Your task to perform on an android device: See recent photos Image 0: 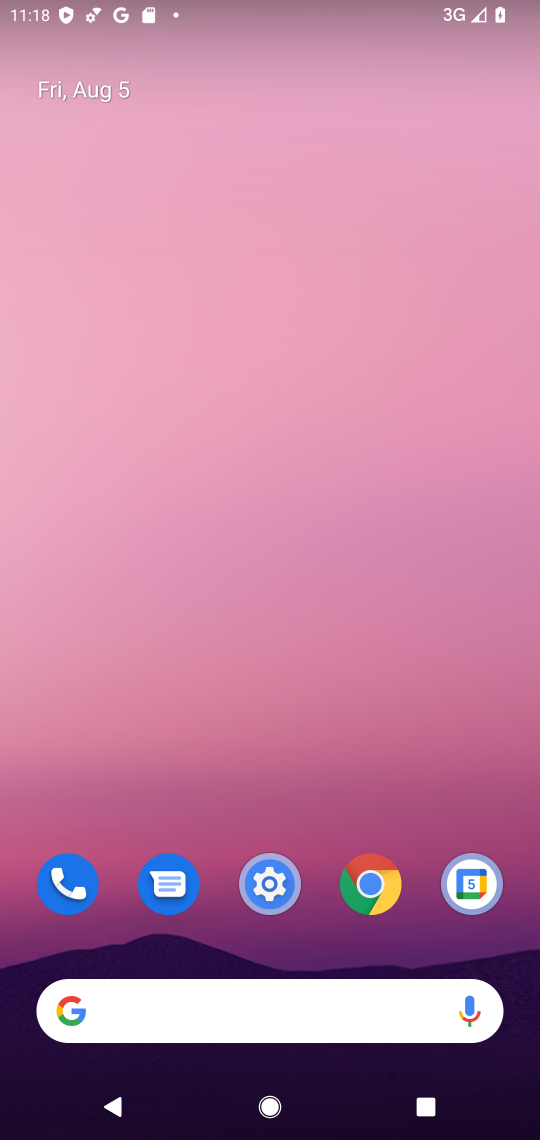
Step 0: drag from (320, 786) to (311, 13)
Your task to perform on an android device: See recent photos Image 1: 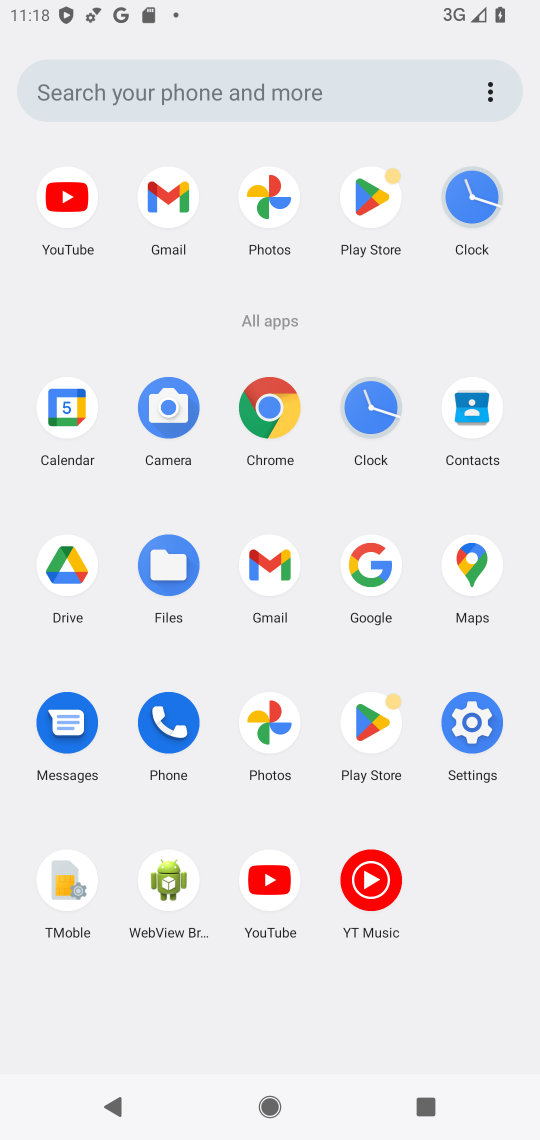
Step 1: click (270, 724)
Your task to perform on an android device: See recent photos Image 2: 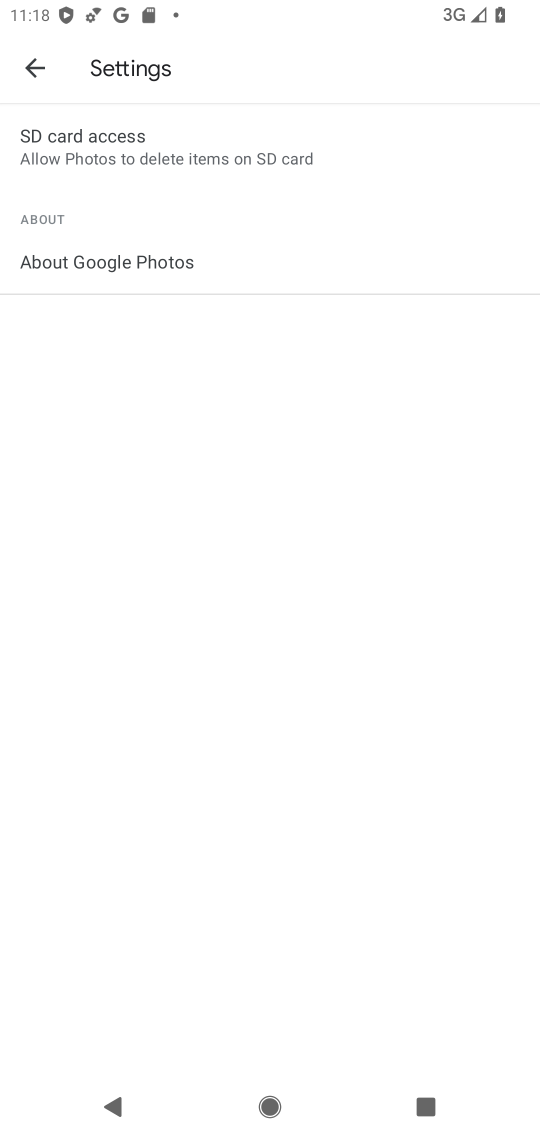
Step 2: click (19, 68)
Your task to perform on an android device: See recent photos Image 3: 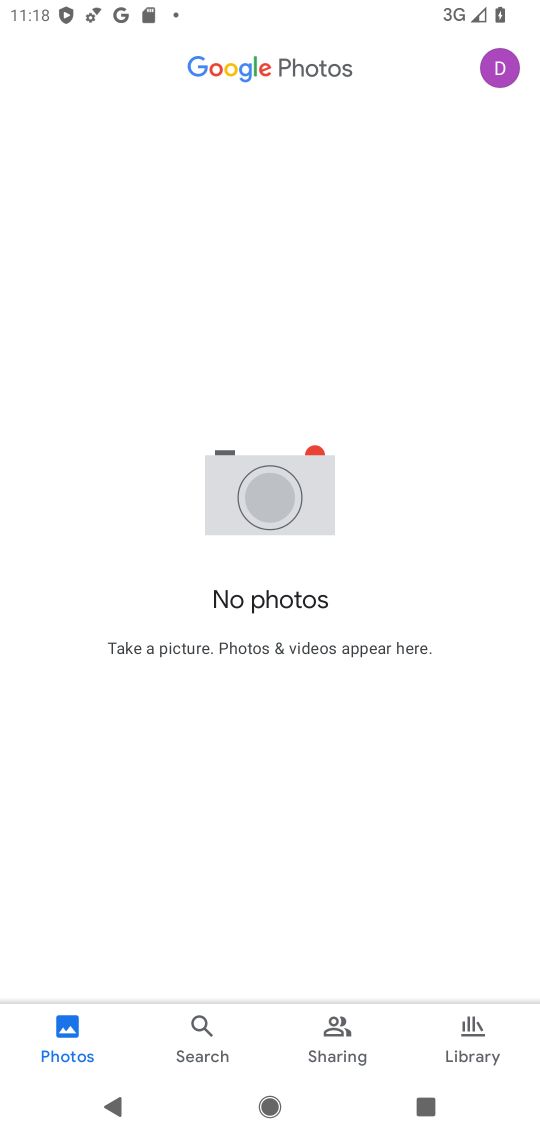
Step 3: task complete